Your task to perform on an android device: open device folders in google photos Image 0: 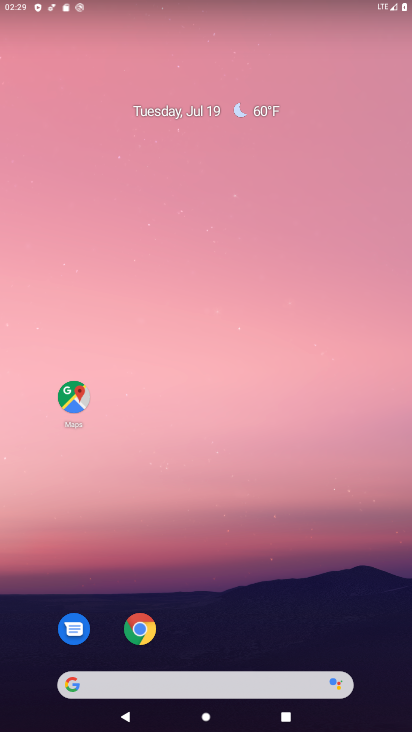
Step 0: drag from (207, 607) to (226, 105)
Your task to perform on an android device: open device folders in google photos Image 1: 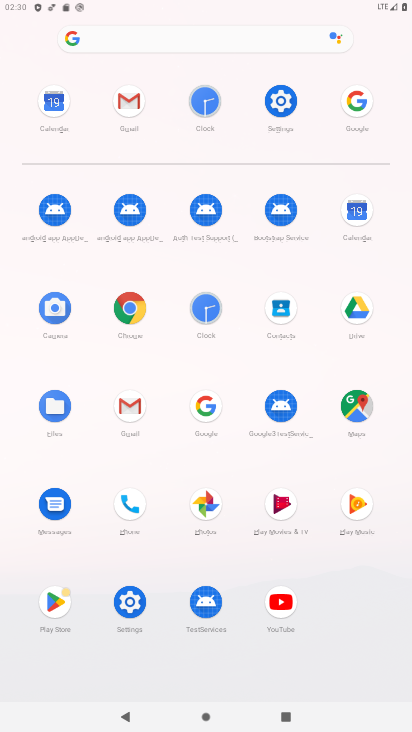
Step 1: click (200, 502)
Your task to perform on an android device: open device folders in google photos Image 2: 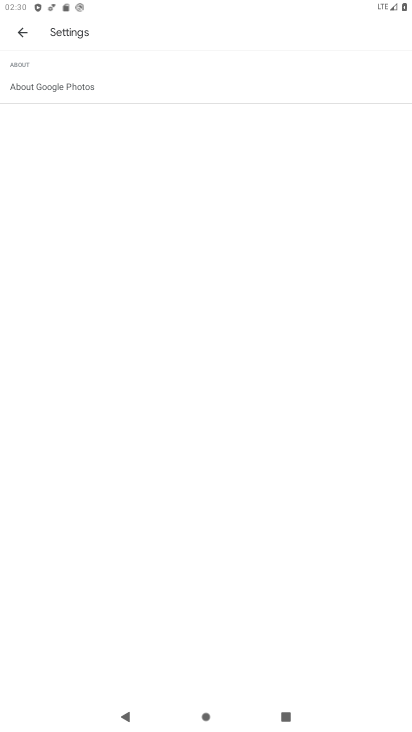
Step 2: click (16, 25)
Your task to perform on an android device: open device folders in google photos Image 3: 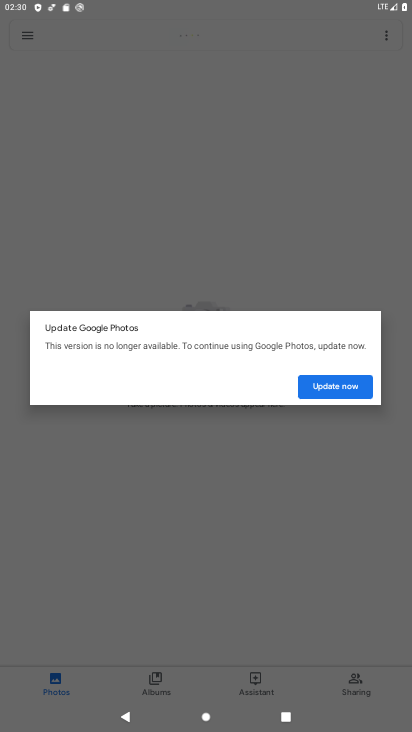
Step 3: click (332, 384)
Your task to perform on an android device: open device folders in google photos Image 4: 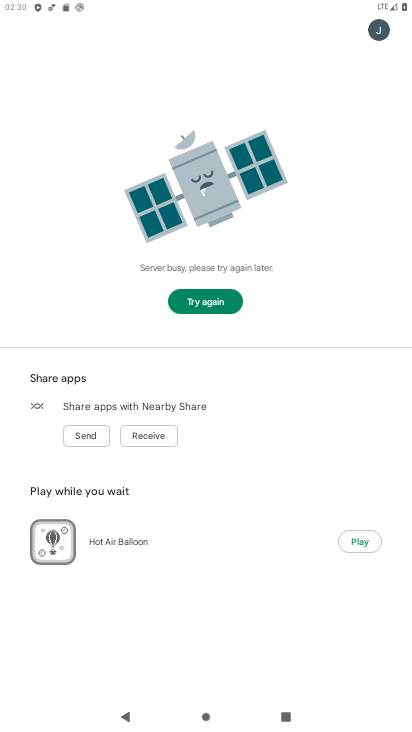
Step 4: task complete